Your task to perform on an android device: Do I have any events today? Image 0: 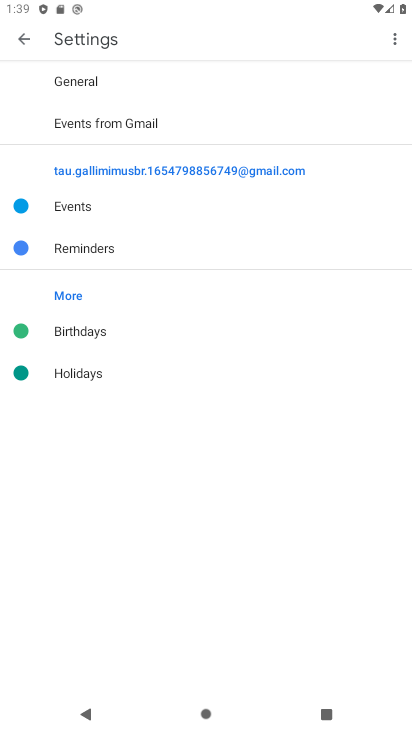
Step 0: press home button
Your task to perform on an android device: Do I have any events today? Image 1: 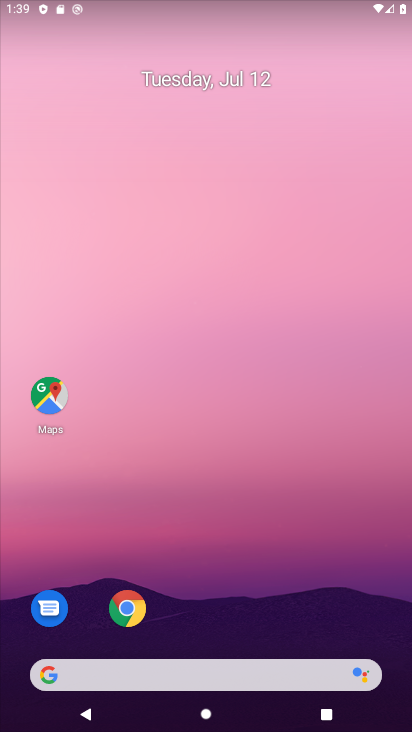
Step 1: drag from (342, 561) to (244, 172)
Your task to perform on an android device: Do I have any events today? Image 2: 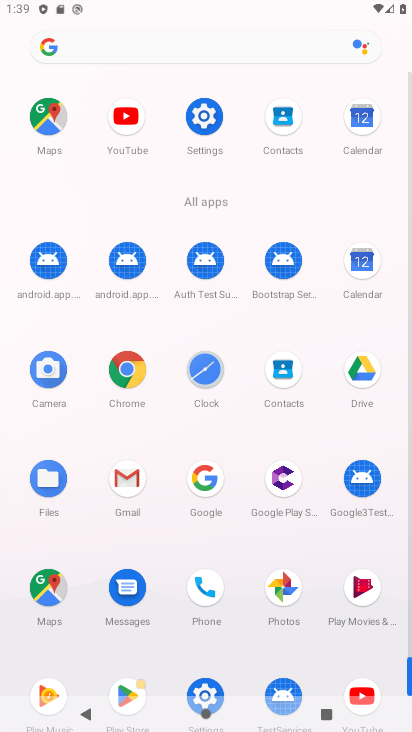
Step 2: click (357, 257)
Your task to perform on an android device: Do I have any events today? Image 3: 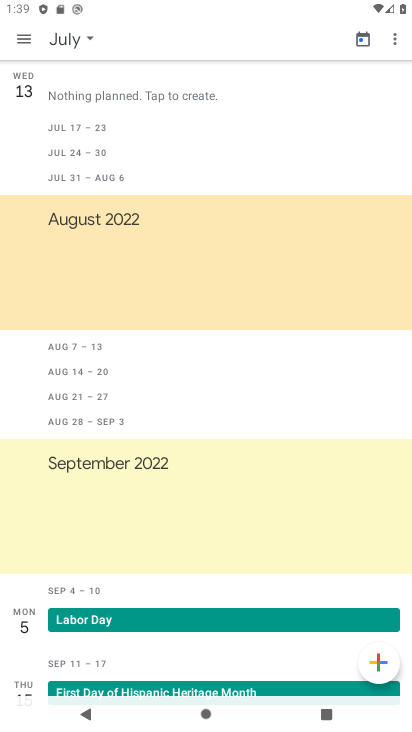
Step 3: click (83, 44)
Your task to perform on an android device: Do I have any events today? Image 4: 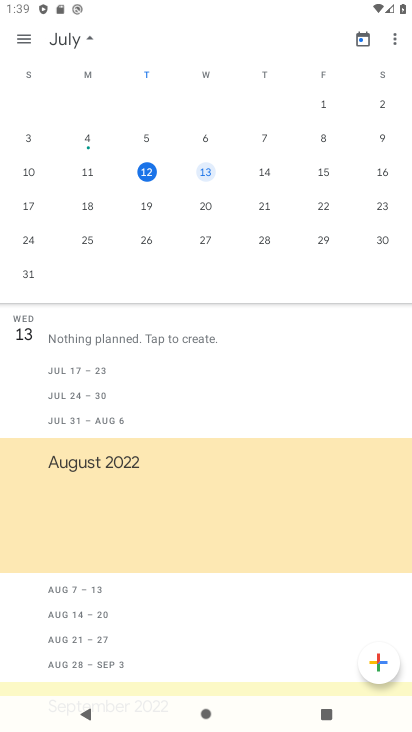
Step 4: click (145, 171)
Your task to perform on an android device: Do I have any events today? Image 5: 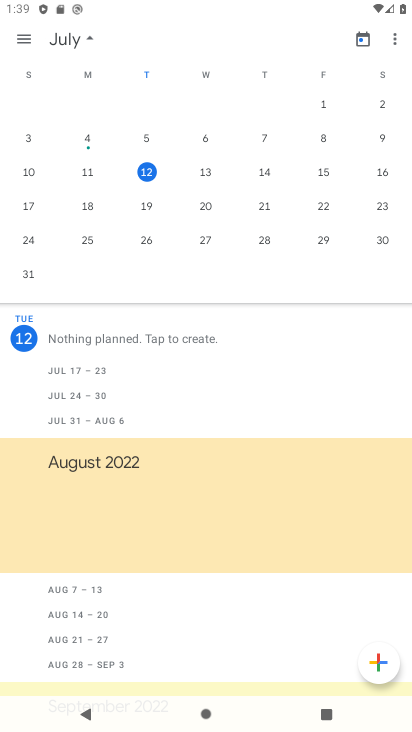
Step 5: click (12, 36)
Your task to perform on an android device: Do I have any events today? Image 6: 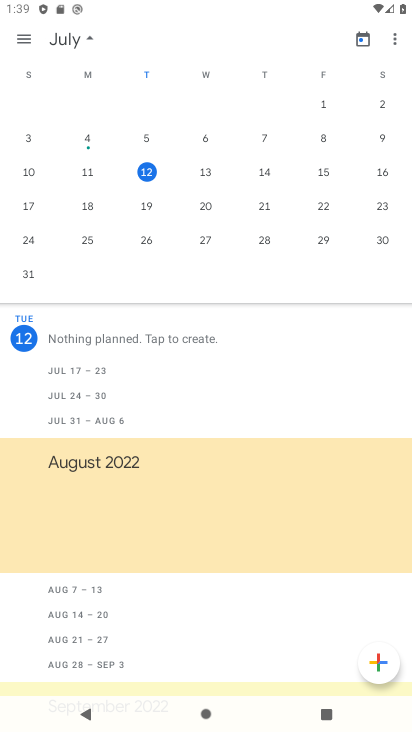
Step 6: click (26, 36)
Your task to perform on an android device: Do I have any events today? Image 7: 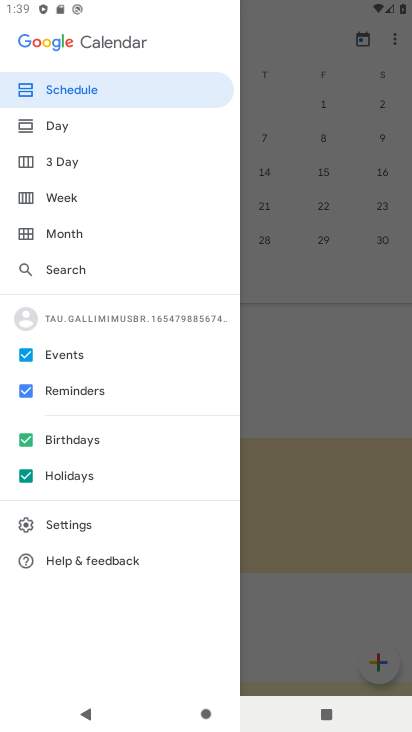
Step 7: click (62, 125)
Your task to perform on an android device: Do I have any events today? Image 8: 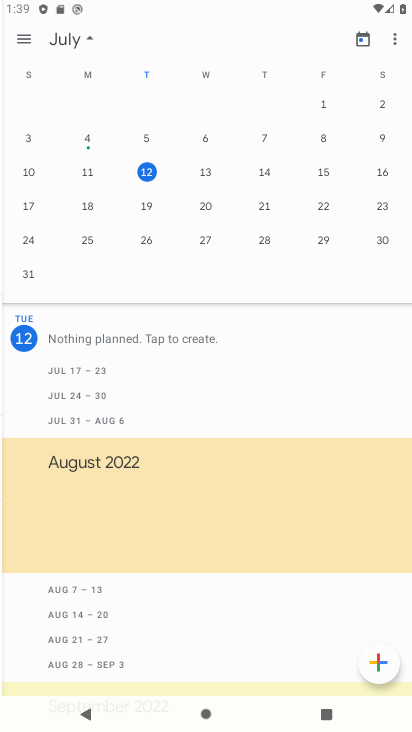
Step 8: click (58, 126)
Your task to perform on an android device: Do I have any events today? Image 9: 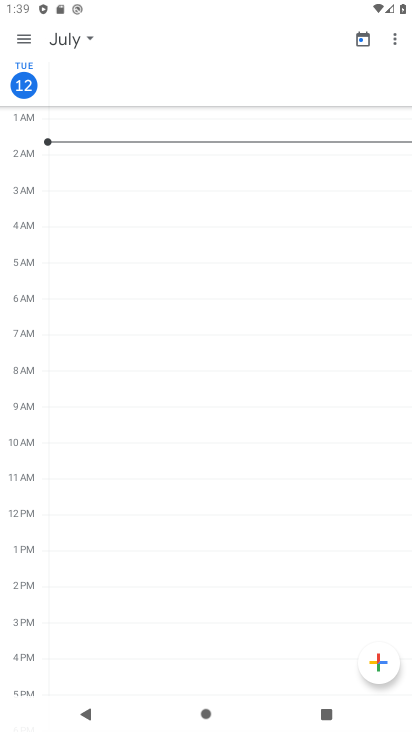
Step 9: task complete